Your task to perform on an android device: Show me the alarms in the clock app Image 0: 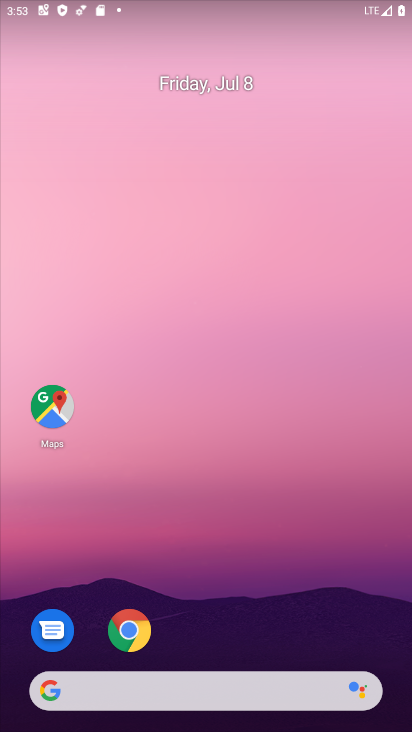
Step 0: drag from (229, 651) to (228, 130)
Your task to perform on an android device: Show me the alarms in the clock app Image 1: 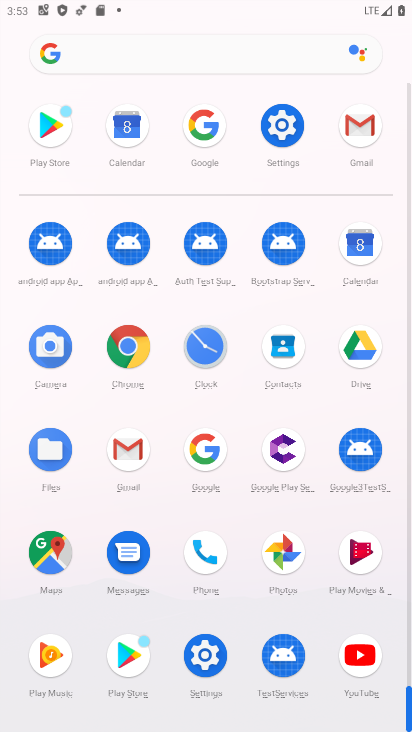
Step 1: click (205, 348)
Your task to perform on an android device: Show me the alarms in the clock app Image 2: 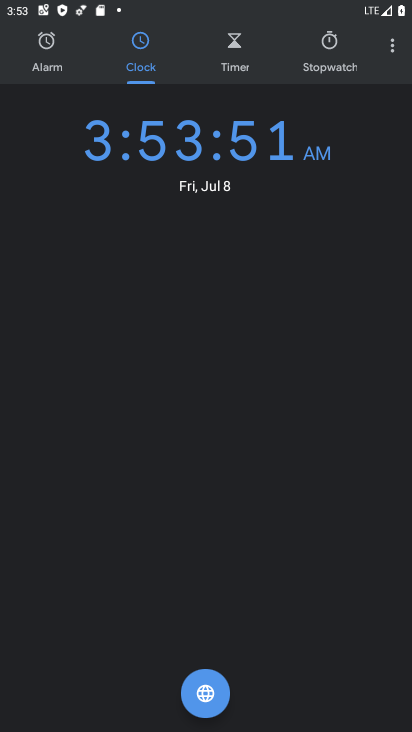
Step 2: click (45, 46)
Your task to perform on an android device: Show me the alarms in the clock app Image 3: 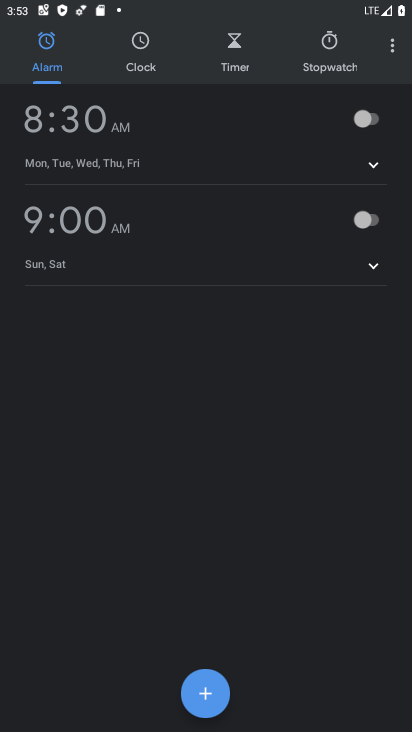
Step 3: click (203, 693)
Your task to perform on an android device: Show me the alarms in the clock app Image 4: 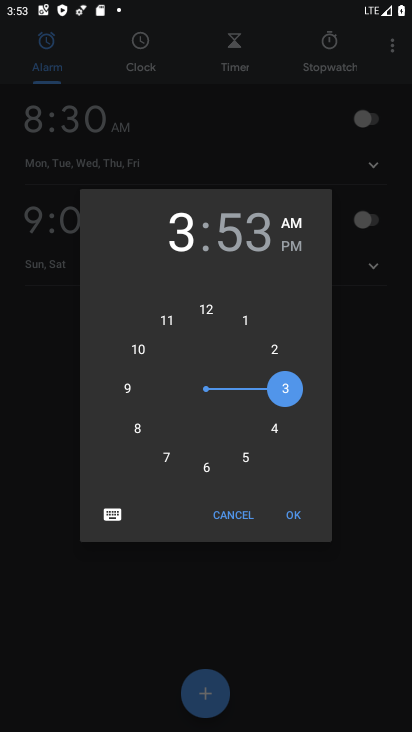
Step 4: click (165, 456)
Your task to perform on an android device: Show me the alarms in the clock app Image 5: 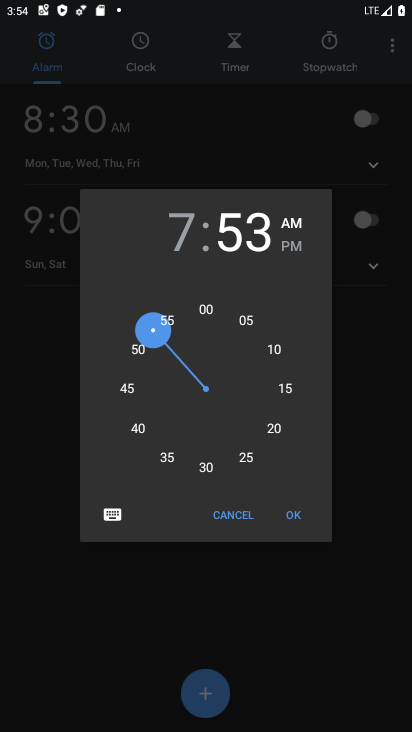
Step 5: click (165, 456)
Your task to perform on an android device: Show me the alarms in the clock app Image 6: 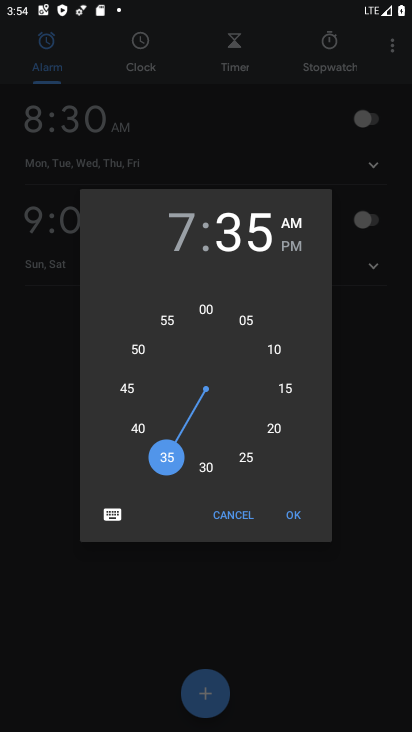
Step 6: click (297, 242)
Your task to perform on an android device: Show me the alarms in the clock app Image 7: 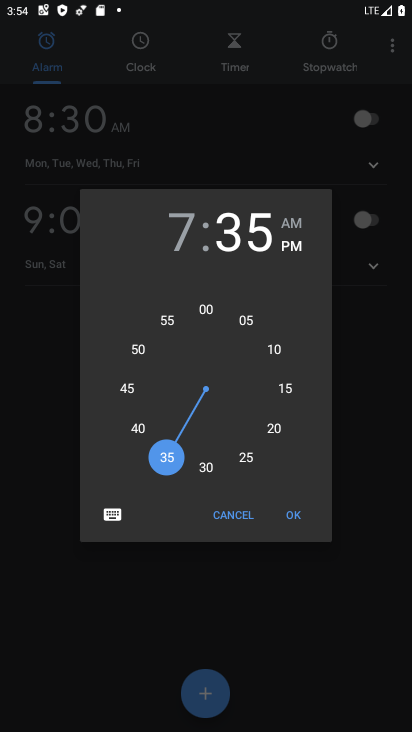
Step 7: click (293, 521)
Your task to perform on an android device: Show me the alarms in the clock app Image 8: 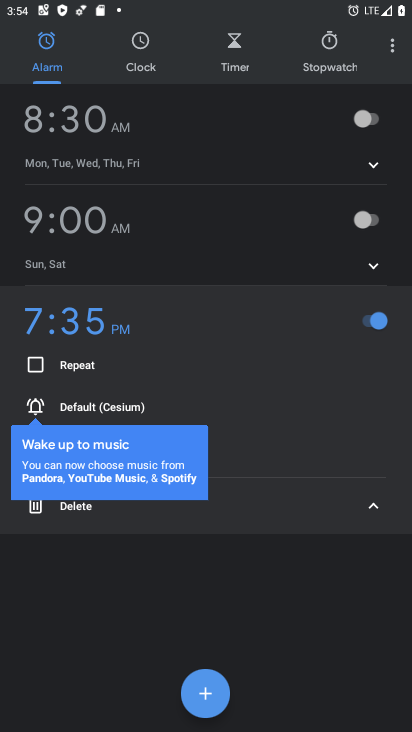
Step 8: click (370, 514)
Your task to perform on an android device: Show me the alarms in the clock app Image 9: 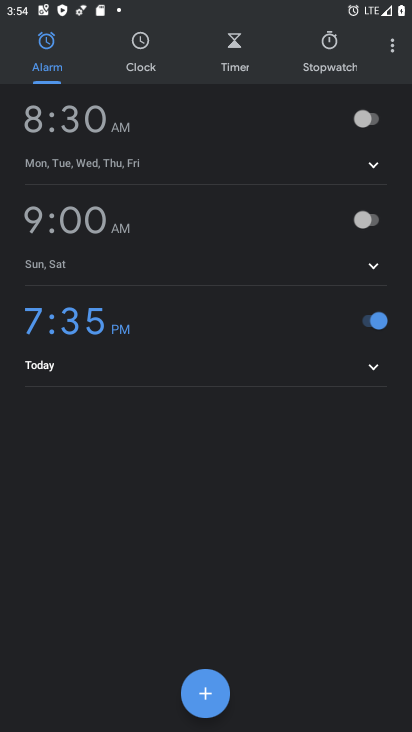
Step 9: task complete